Your task to perform on an android device: Show me the alarms in the clock app Image 0: 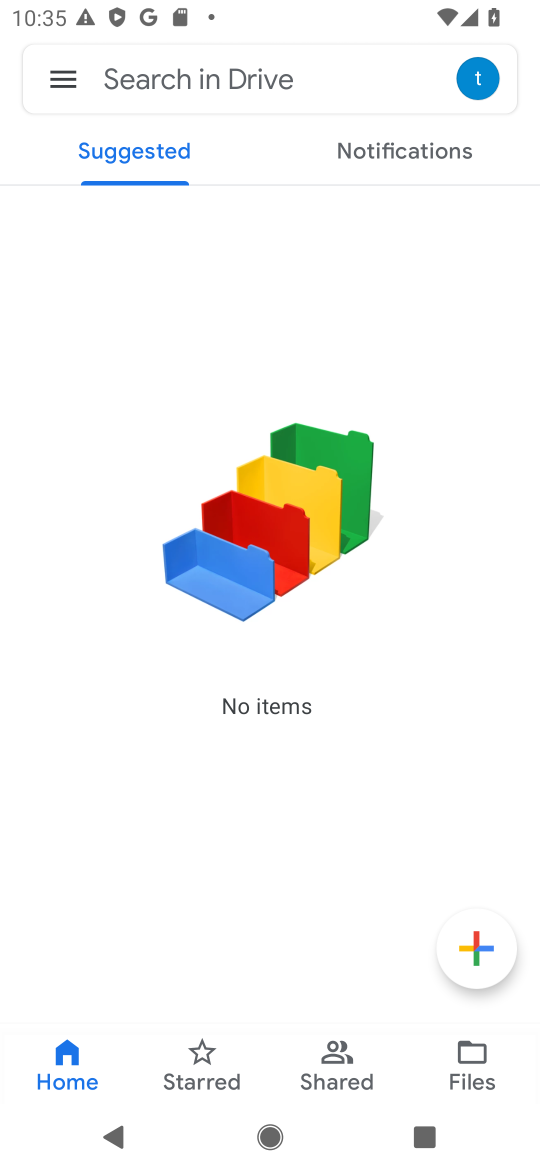
Step 0: press home button
Your task to perform on an android device: Show me the alarms in the clock app Image 1: 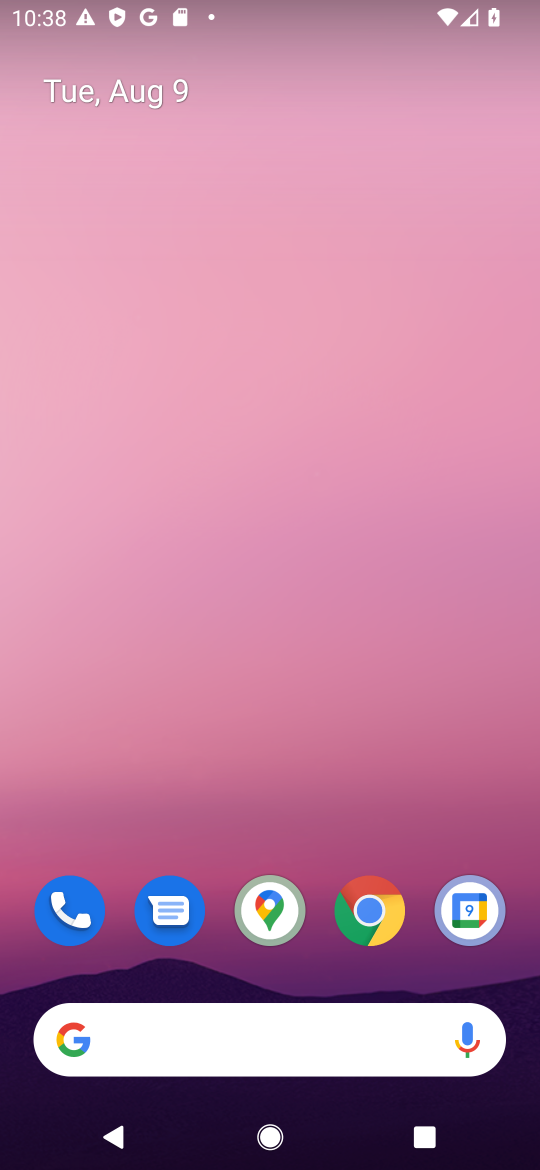
Step 1: drag from (90, 842) to (539, 188)
Your task to perform on an android device: Show me the alarms in the clock app Image 2: 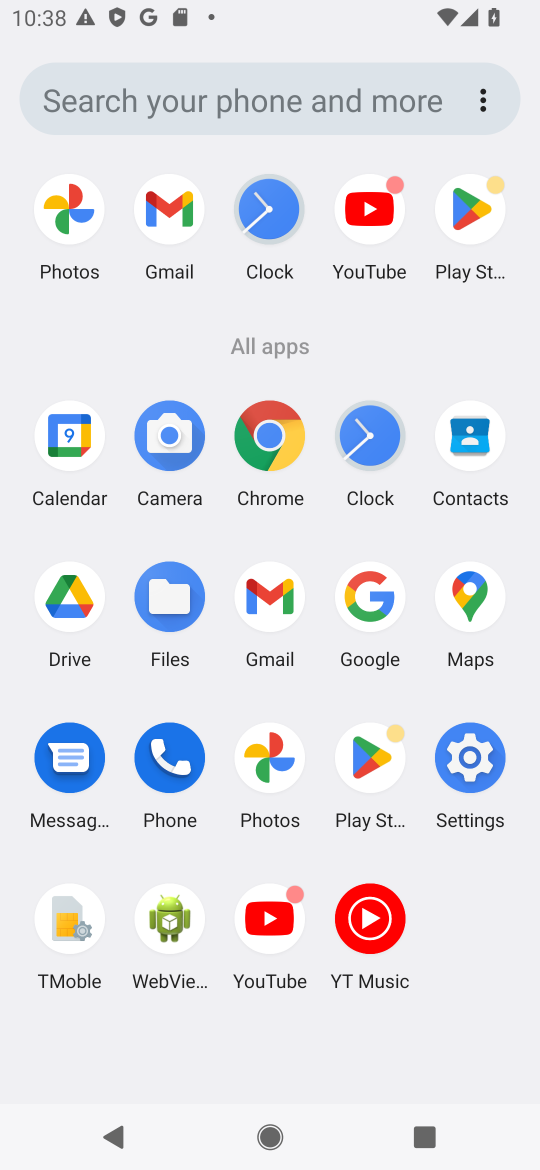
Step 2: click (263, 231)
Your task to perform on an android device: Show me the alarms in the clock app Image 3: 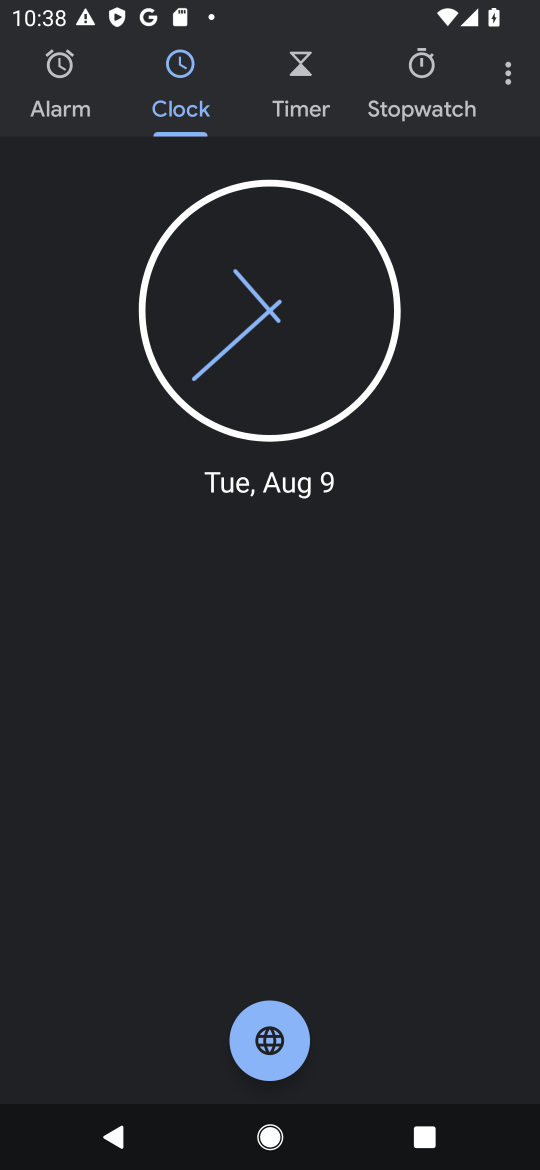
Step 3: click (514, 71)
Your task to perform on an android device: Show me the alarms in the clock app Image 4: 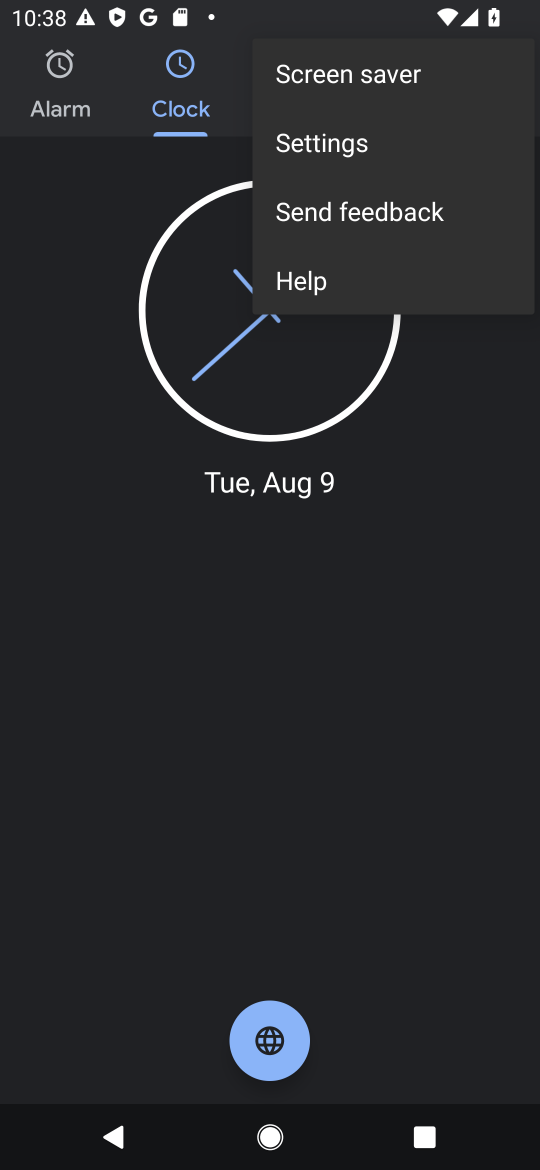
Step 4: click (415, 520)
Your task to perform on an android device: Show me the alarms in the clock app Image 5: 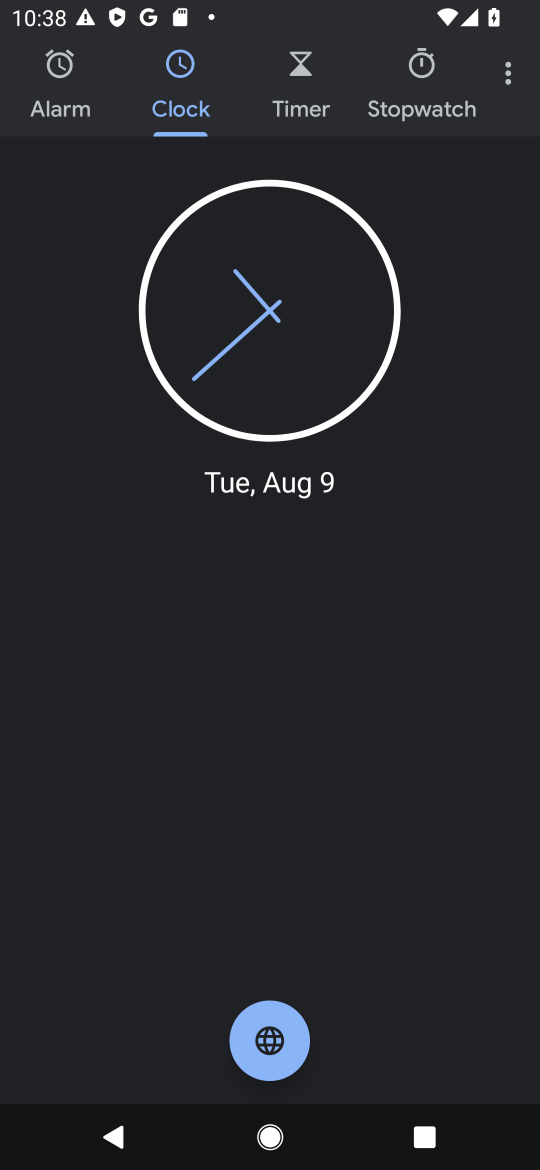
Step 5: click (66, 76)
Your task to perform on an android device: Show me the alarms in the clock app Image 6: 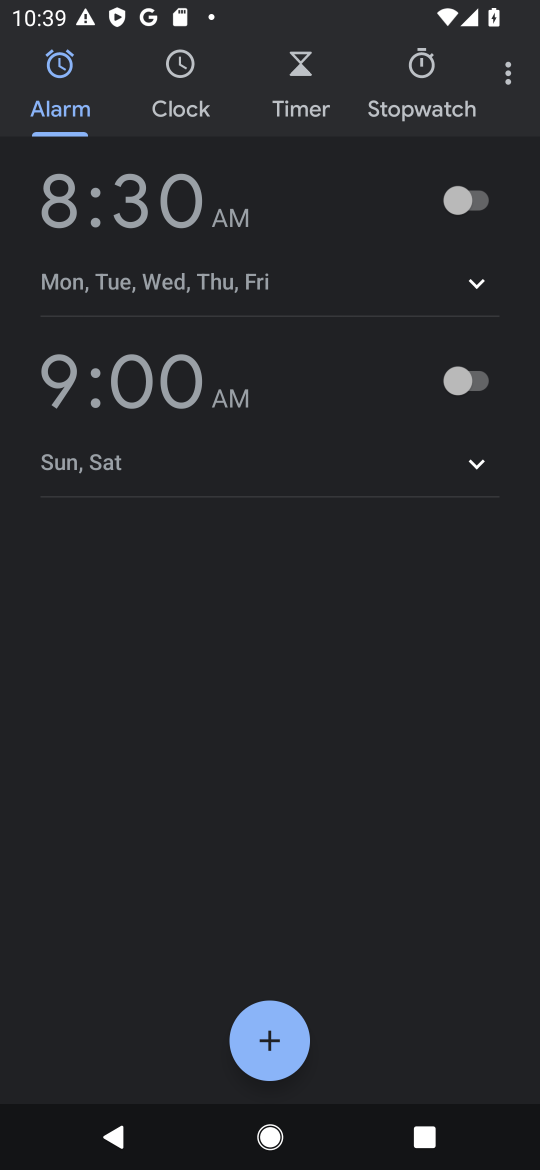
Step 6: task complete